Your task to perform on an android device: Open display settings Image 0: 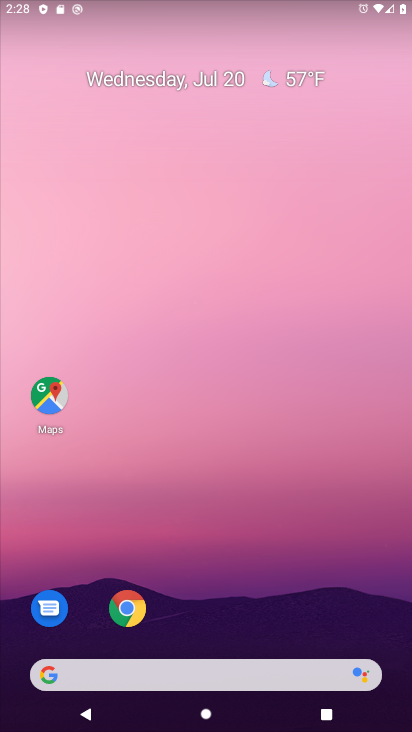
Step 0: drag from (235, 633) to (144, 22)
Your task to perform on an android device: Open display settings Image 1: 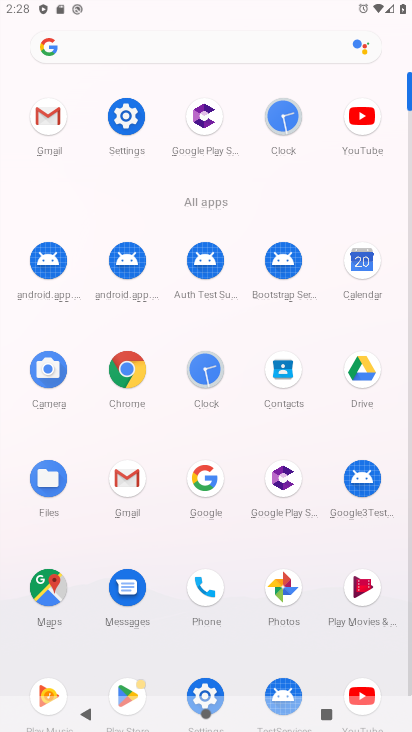
Step 1: click (123, 113)
Your task to perform on an android device: Open display settings Image 2: 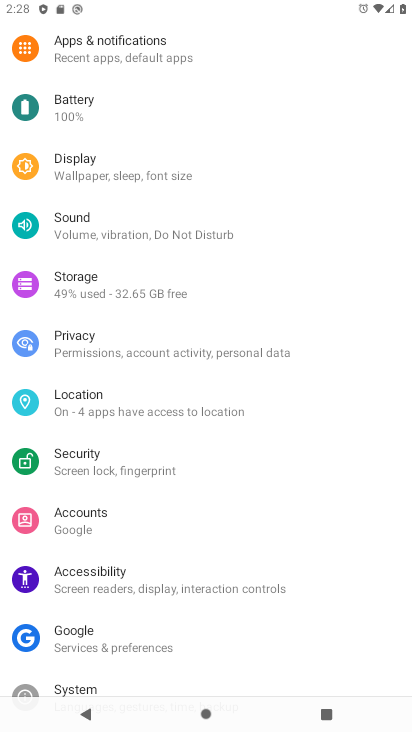
Step 2: click (104, 164)
Your task to perform on an android device: Open display settings Image 3: 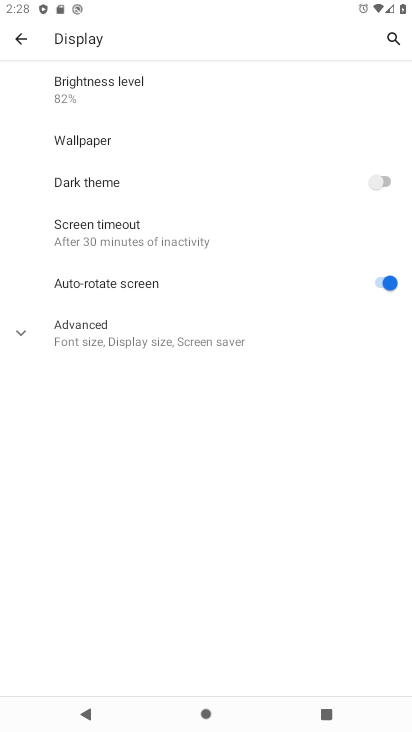
Step 3: click (22, 327)
Your task to perform on an android device: Open display settings Image 4: 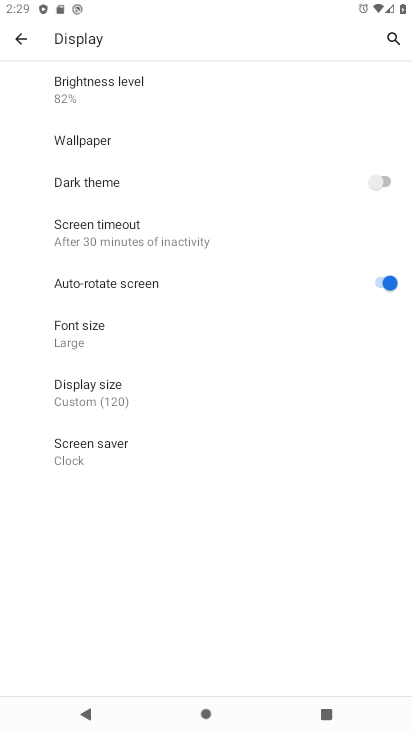
Step 4: task complete